Your task to perform on an android device: Open the web browser Image 0: 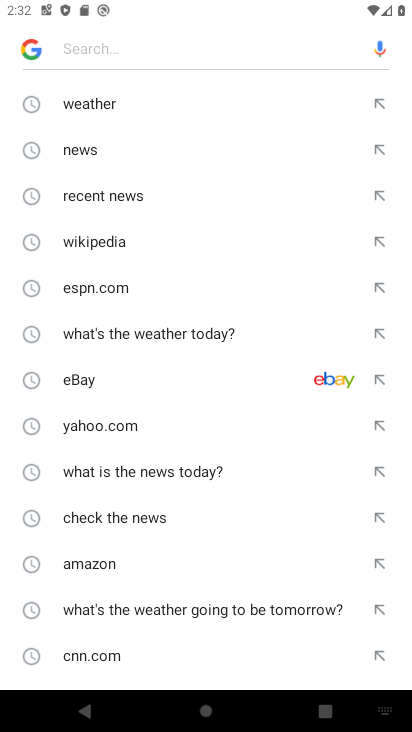
Step 0: press home button
Your task to perform on an android device: Open the web browser Image 1: 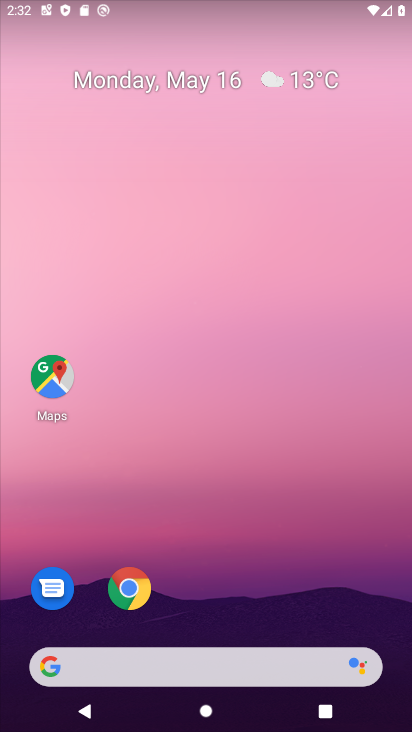
Step 1: drag from (347, 635) to (328, 84)
Your task to perform on an android device: Open the web browser Image 2: 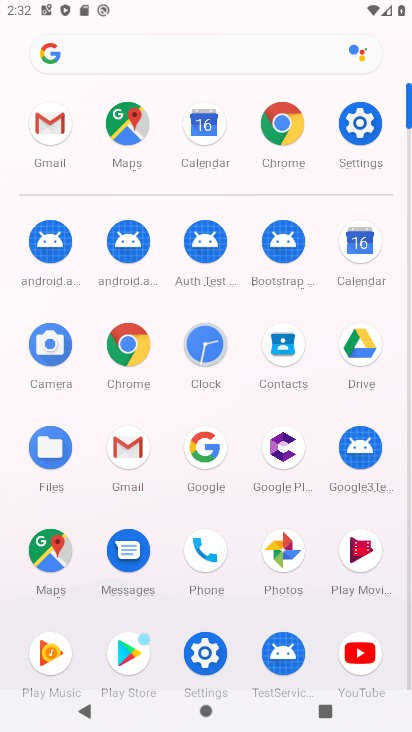
Step 2: click (122, 340)
Your task to perform on an android device: Open the web browser Image 3: 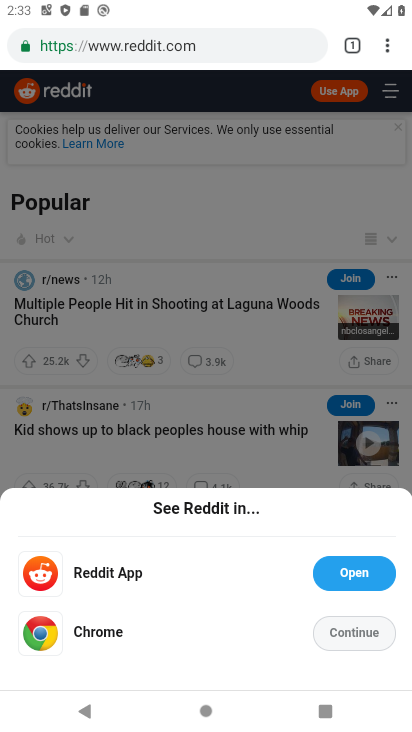
Step 3: click (368, 239)
Your task to perform on an android device: Open the web browser Image 4: 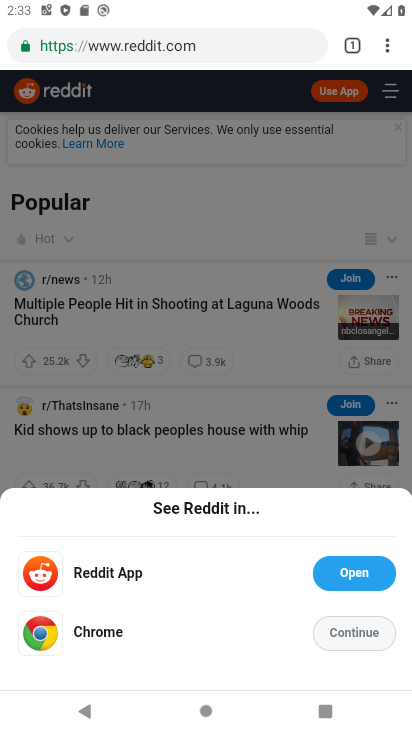
Step 4: click (389, 36)
Your task to perform on an android device: Open the web browser Image 5: 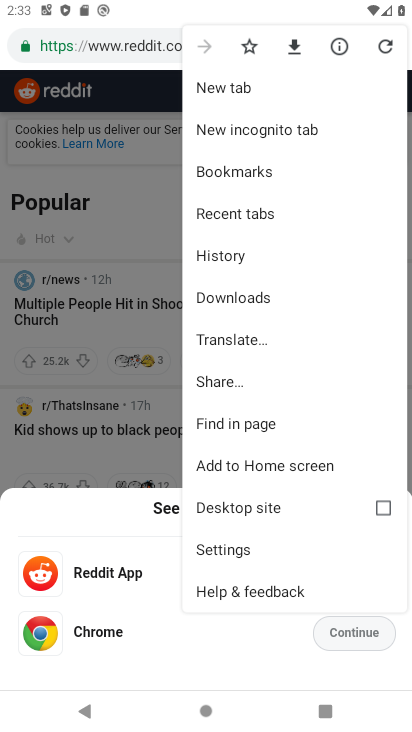
Step 5: click (273, 96)
Your task to perform on an android device: Open the web browser Image 6: 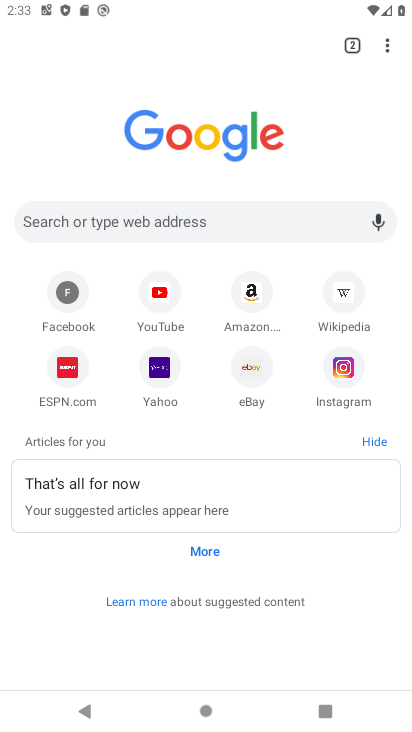
Step 6: task complete